Your task to perform on an android device: When is my next meeting? Image 0: 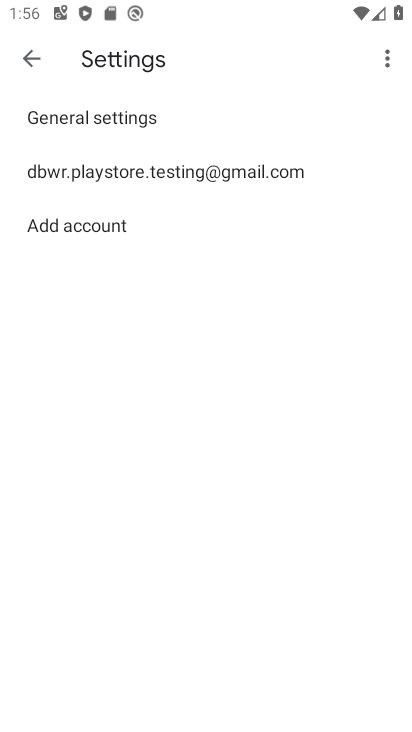
Step 0: press home button
Your task to perform on an android device: When is my next meeting? Image 1: 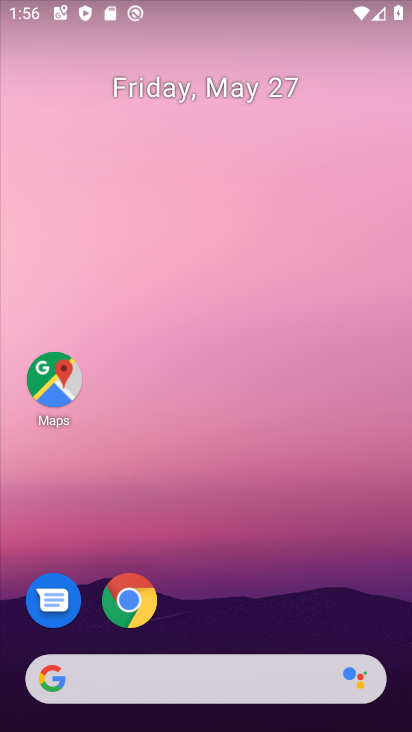
Step 1: drag from (221, 723) to (220, 299)
Your task to perform on an android device: When is my next meeting? Image 2: 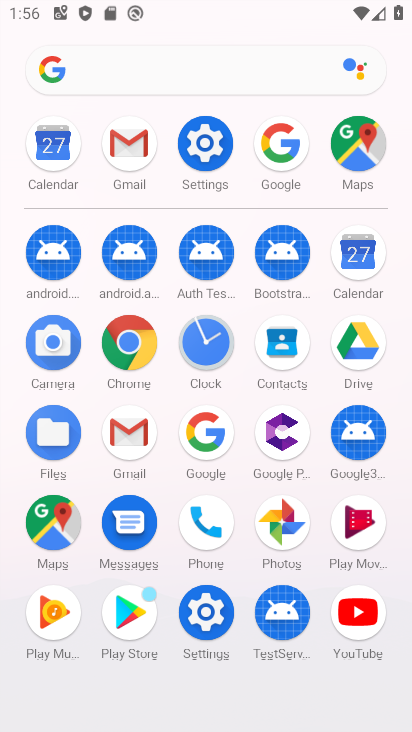
Step 2: click (364, 256)
Your task to perform on an android device: When is my next meeting? Image 3: 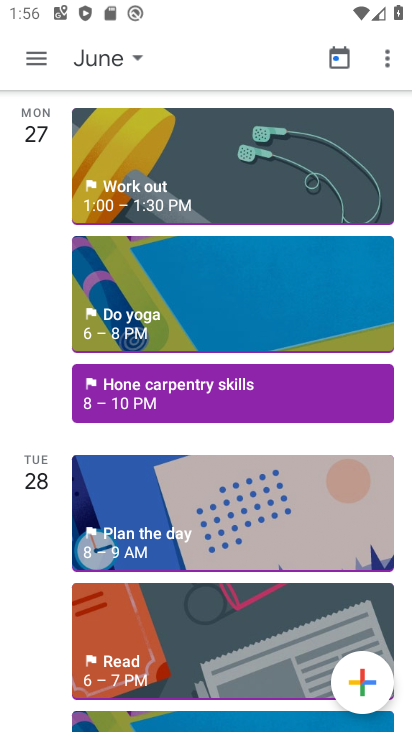
Step 3: click (120, 50)
Your task to perform on an android device: When is my next meeting? Image 4: 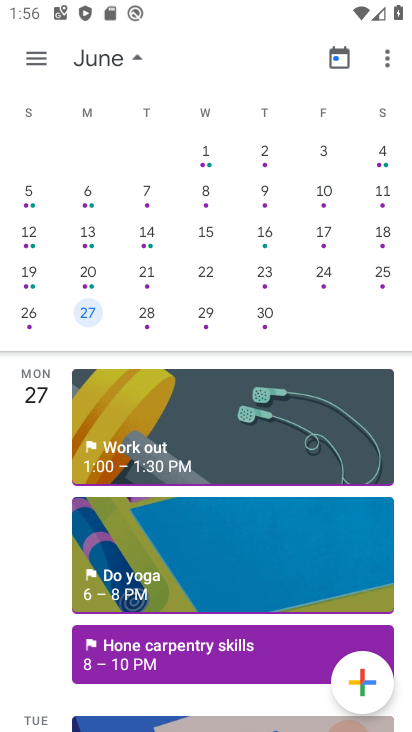
Step 4: click (149, 313)
Your task to perform on an android device: When is my next meeting? Image 5: 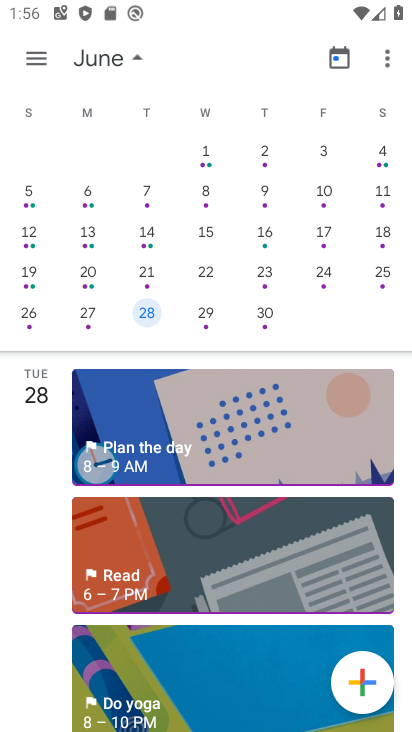
Step 5: click (136, 58)
Your task to perform on an android device: When is my next meeting? Image 6: 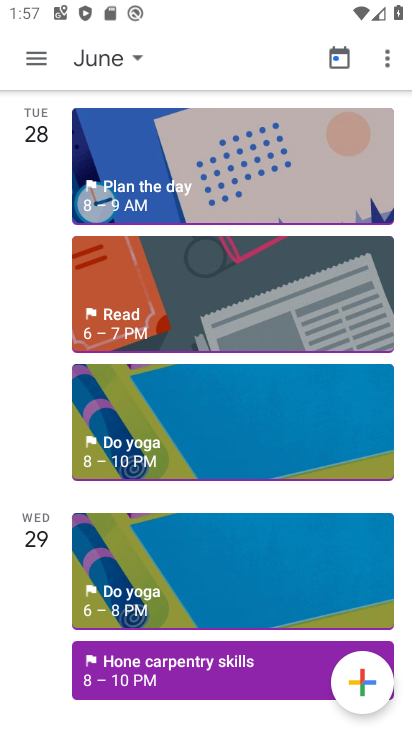
Step 6: task complete